Your task to perform on an android device: Check the weather Image 0: 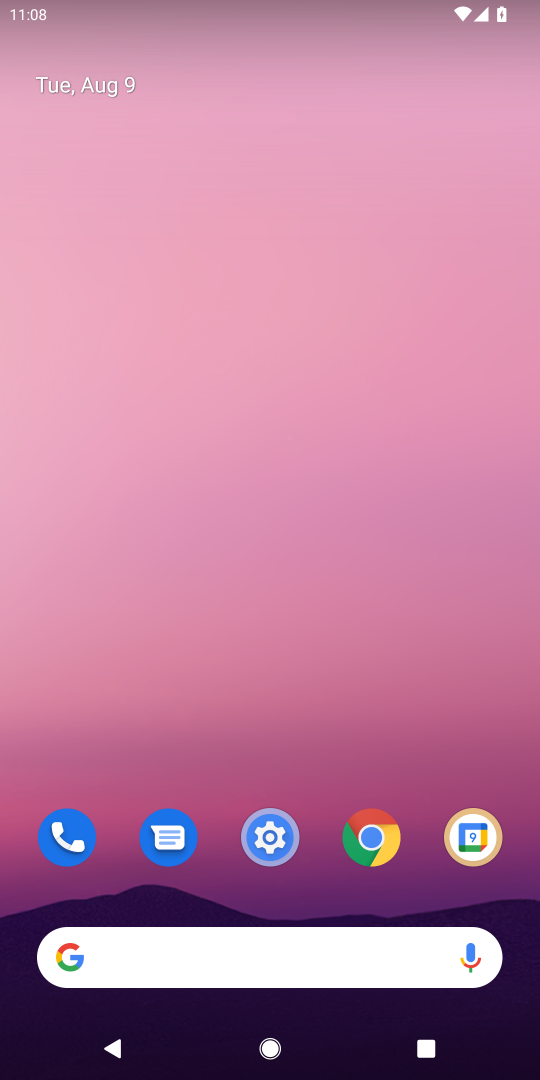
Step 0: drag from (339, 900) to (336, 62)
Your task to perform on an android device: Check the weather Image 1: 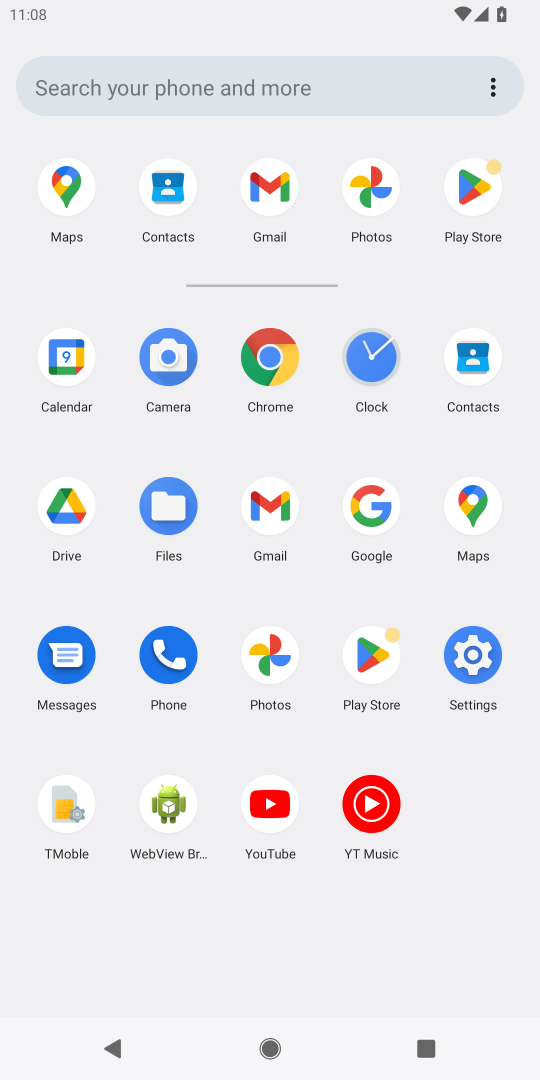
Step 1: click (374, 509)
Your task to perform on an android device: Check the weather Image 2: 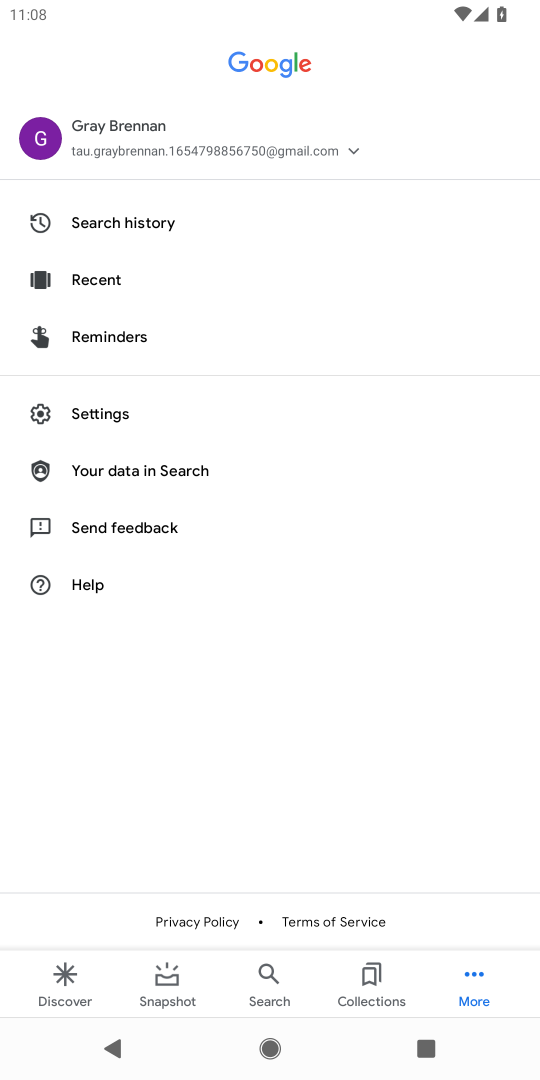
Step 2: click (76, 976)
Your task to perform on an android device: Check the weather Image 3: 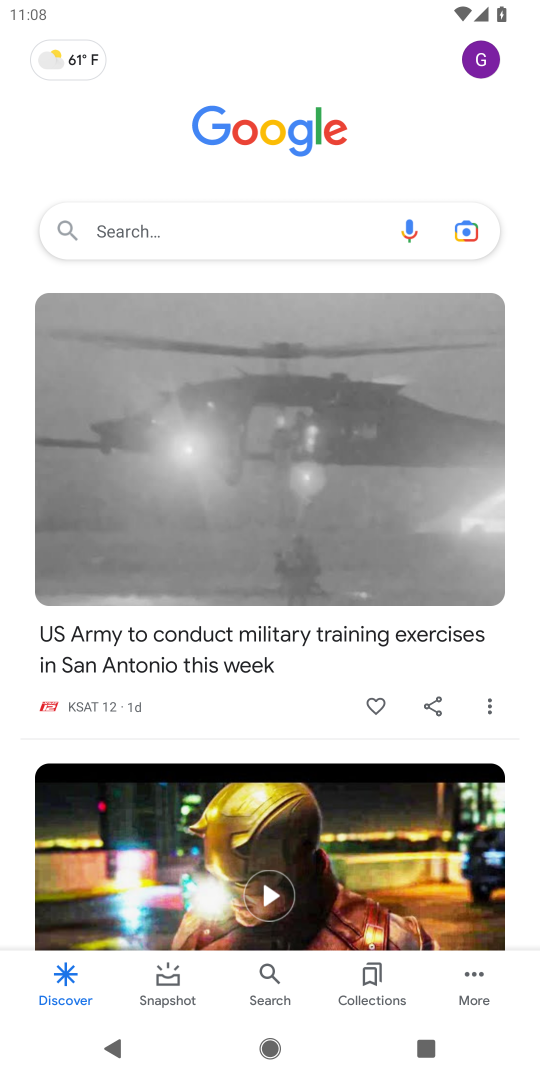
Step 3: click (172, 237)
Your task to perform on an android device: Check the weather Image 4: 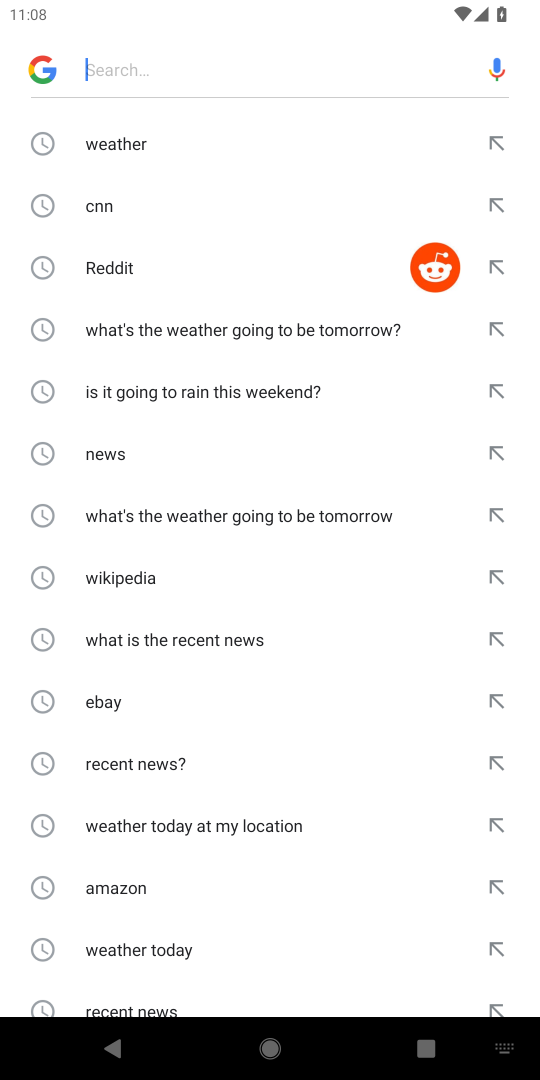
Step 4: click (117, 143)
Your task to perform on an android device: Check the weather Image 5: 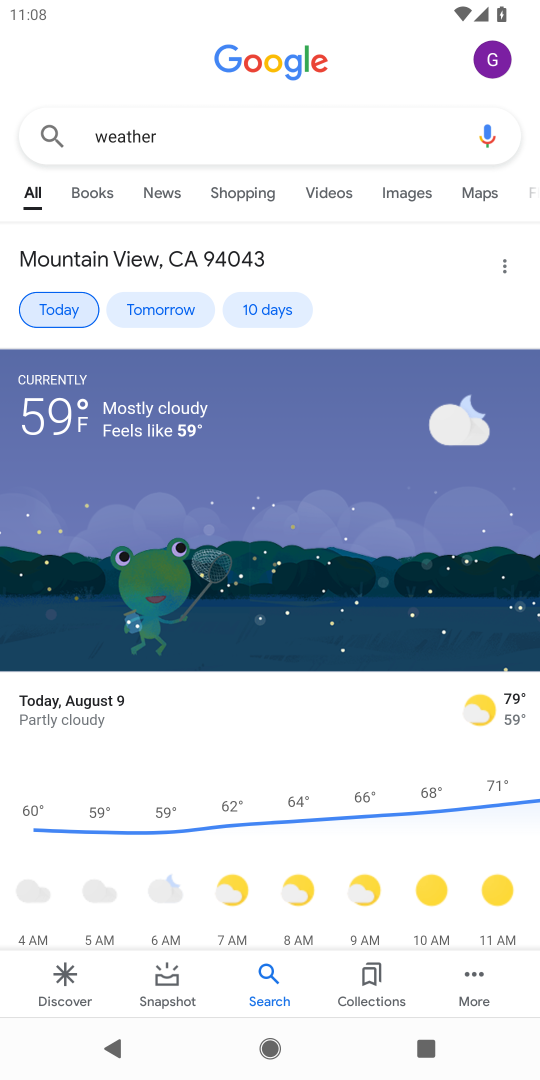
Step 5: task complete